Your task to perform on an android device: turn notification dots off Image 0: 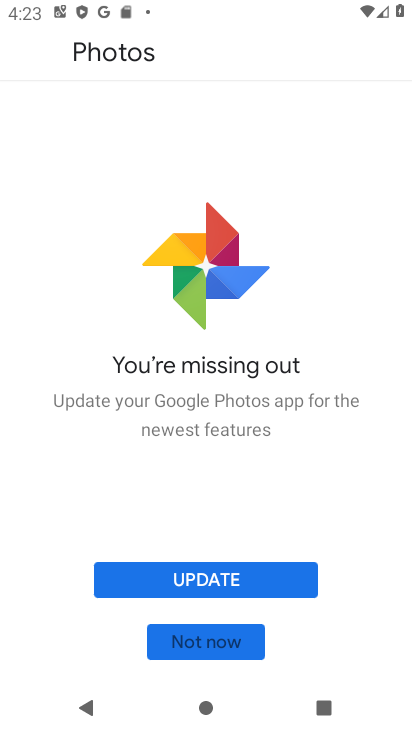
Step 0: press back button
Your task to perform on an android device: turn notification dots off Image 1: 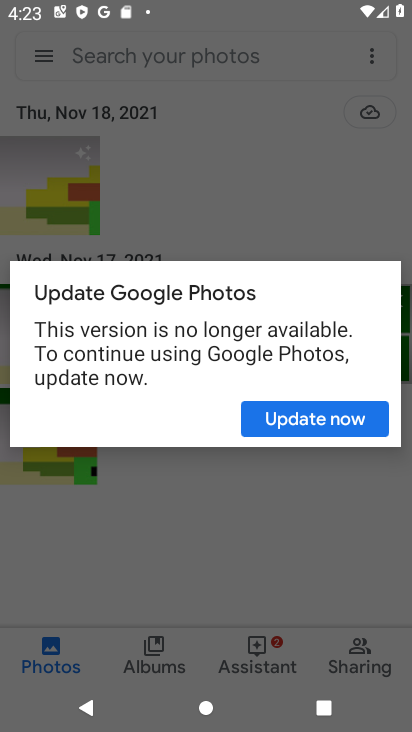
Step 1: press home button
Your task to perform on an android device: turn notification dots off Image 2: 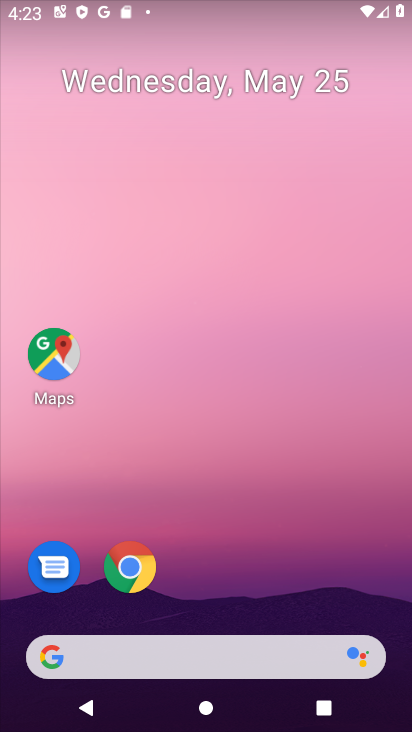
Step 2: drag from (222, 461) to (190, 5)
Your task to perform on an android device: turn notification dots off Image 3: 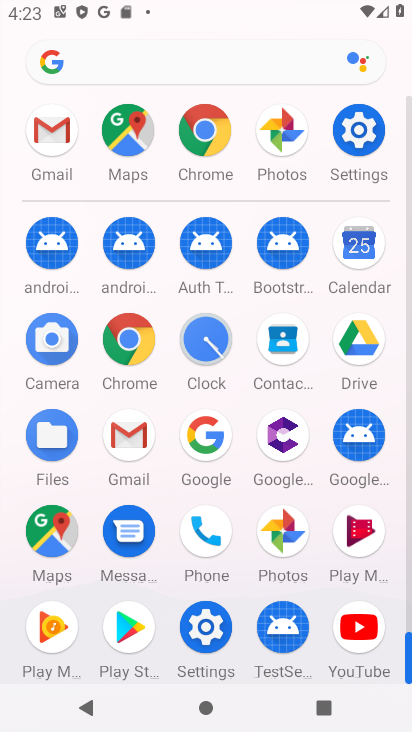
Step 3: click (209, 626)
Your task to perform on an android device: turn notification dots off Image 4: 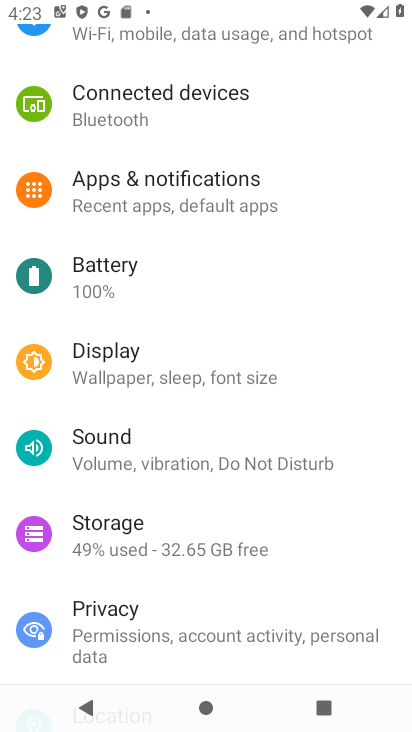
Step 4: click (215, 180)
Your task to perform on an android device: turn notification dots off Image 5: 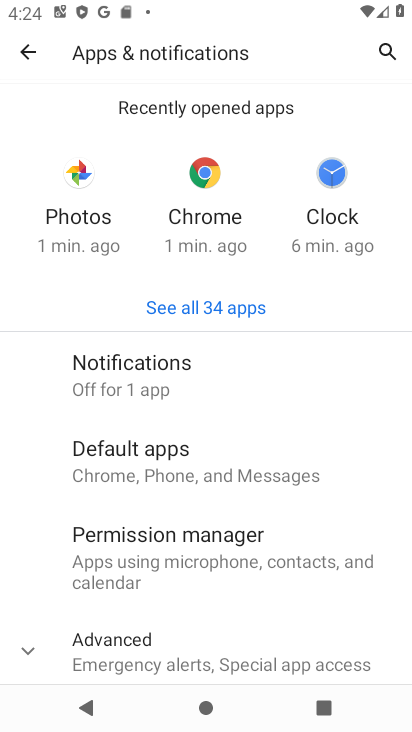
Step 5: click (35, 656)
Your task to perform on an android device: turn notification dots off Image 6: 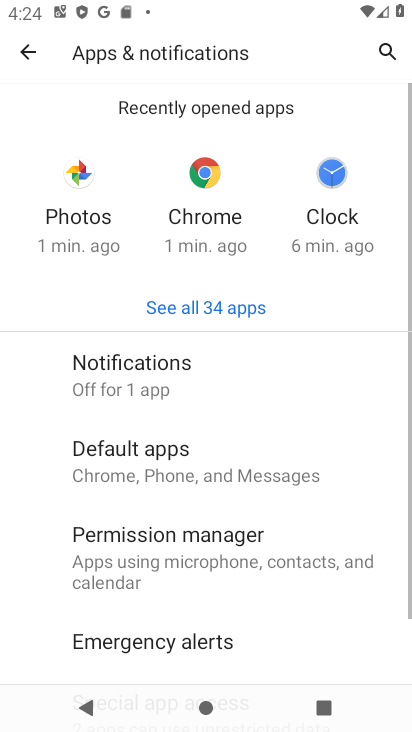
Step 6: drag from (245, 616) to (261, 225)
Your task to perform on an android device: turn notification dots off Image 7: 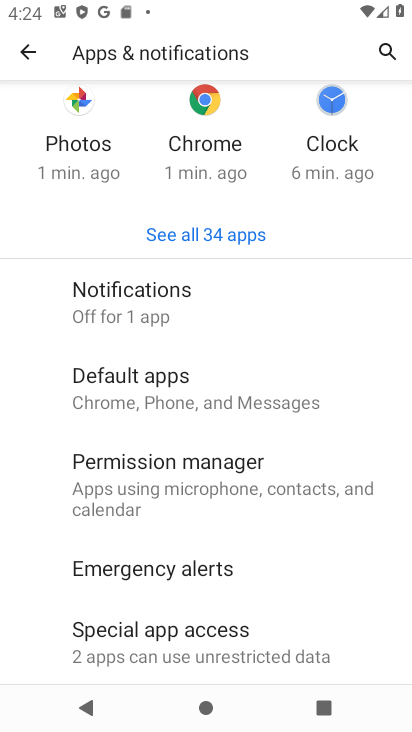
Step 7: click (186, 296)
Your task to perform on an android device: turn notification dots off Image 8: 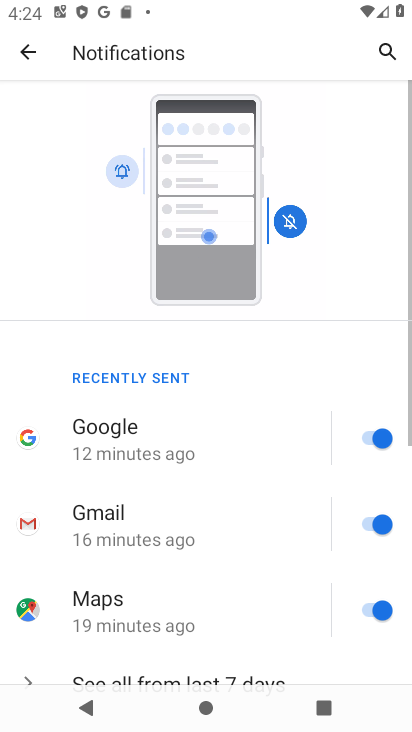
Step 8: drag from (248, 603) to (269, 145)
Your task to perform on an android device: turn notification dots off Image 9: 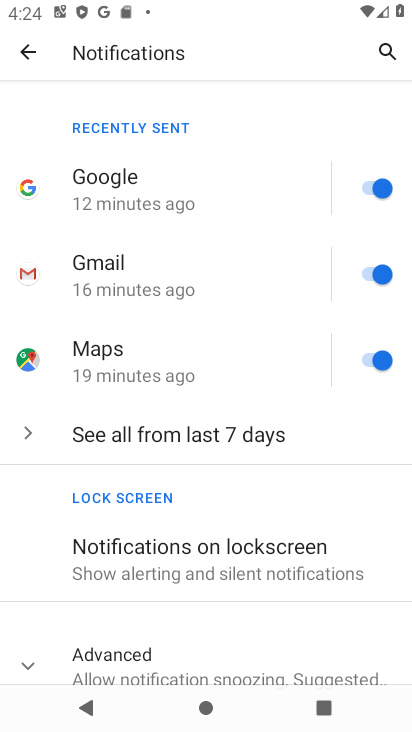
Step 9: drag from (221, 584) to (225, 147)
Your task to perform on an android device: turn notification dots off Image 10: 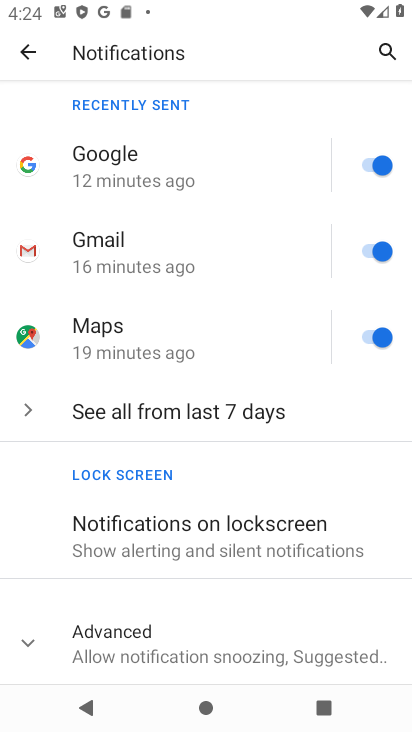
Step 10: click (65, 629)
Your task to perform on an android device: turn notification dots off Image 11: 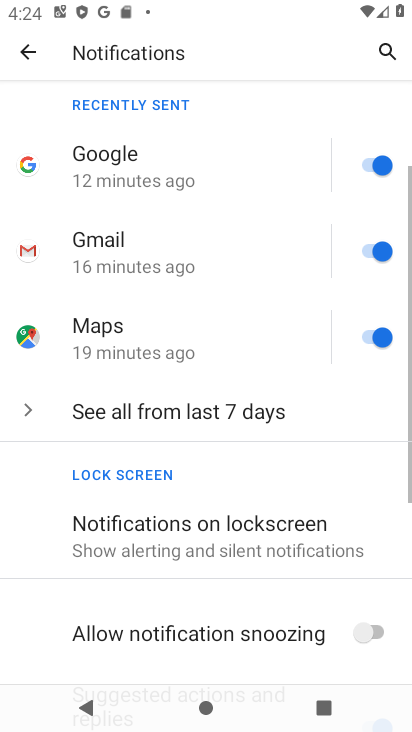
Step 11: task complete